Your task to perform on an android device: change keyboard looks Image 0: 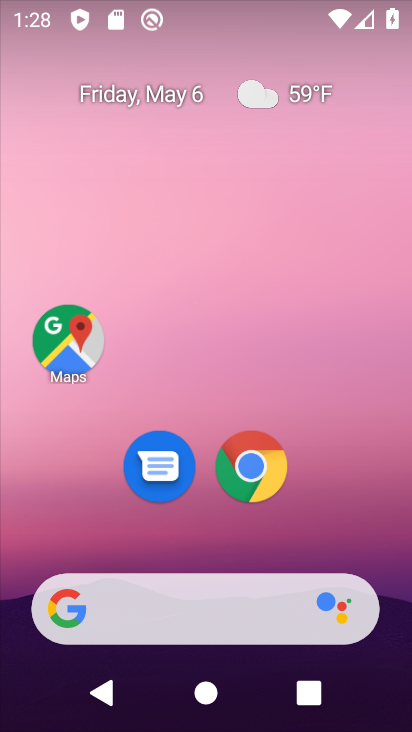
Step 0: drag from (193, 557) to (207, 85)
Your task to perform on an android device: change keyboard looks Image 1: 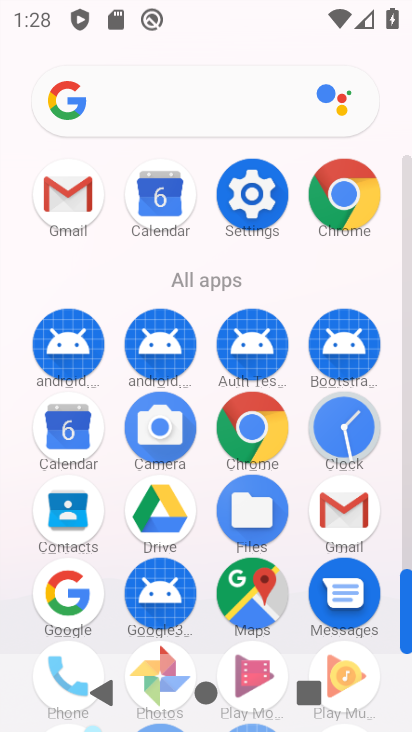
Step 1: click (340, 501)
Your task to perform on an android device: change keyboard looks Image 2: 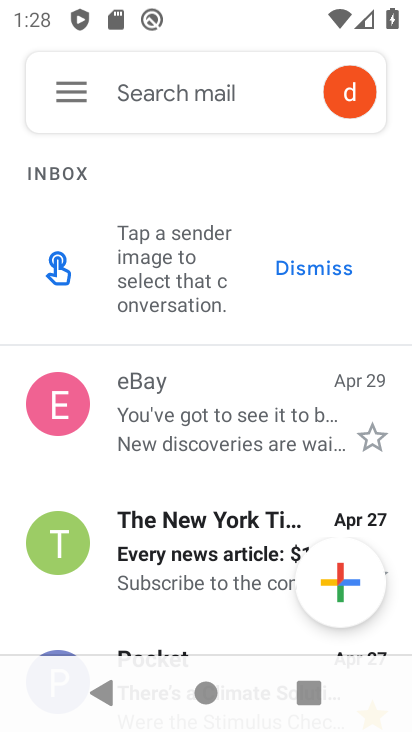
Step 2: press home button
Your task to perform on an android device: change keyboard looks Image 3: 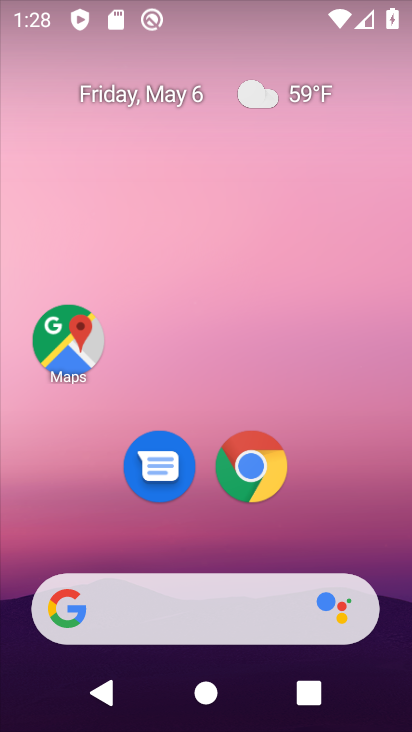
Step 3: drag from (206, 554) to (192, 59)
Your task to perform on an android device: change keyboard looks Image 4: 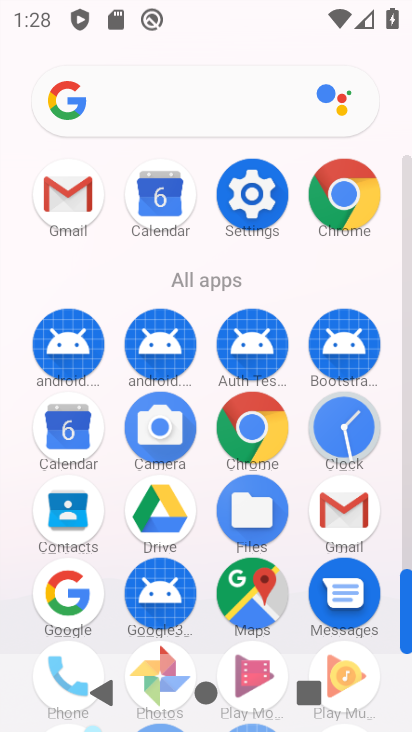
Step 4: click (248, 187)
Your task to perform on an android device: change keyboard looks Image 5: 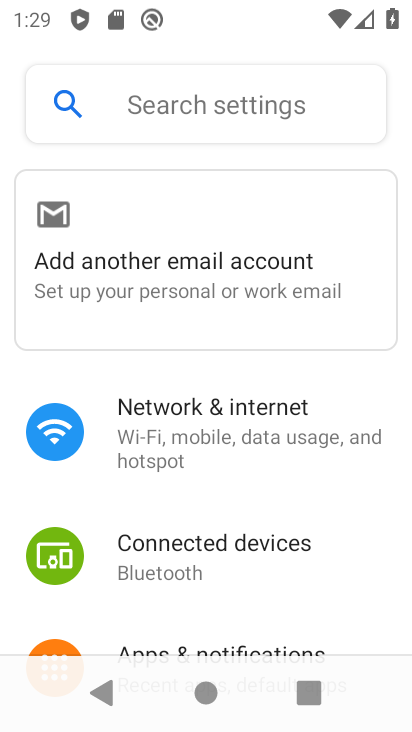
Step 5: drag from (212, 621) to (202, 147)
Your task to perform on an android device: change keyboard looks Image 6: 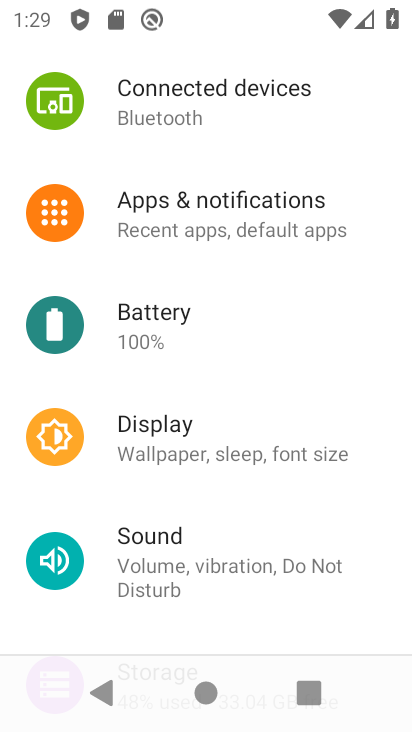
Step 6: drag from (185, 618) to (189, 74)
Your task to perform on an android device: change keyboard looks Image 7: 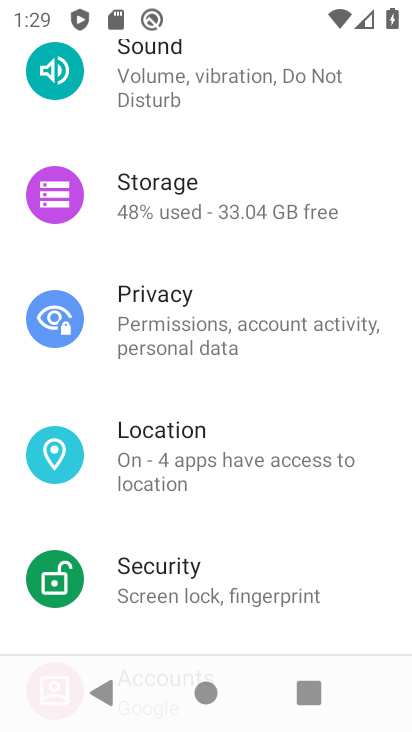
Step 7: drag from (224, 628) to (233, 30)
Your task to perform on an android device: change keyboard looks Image 8: 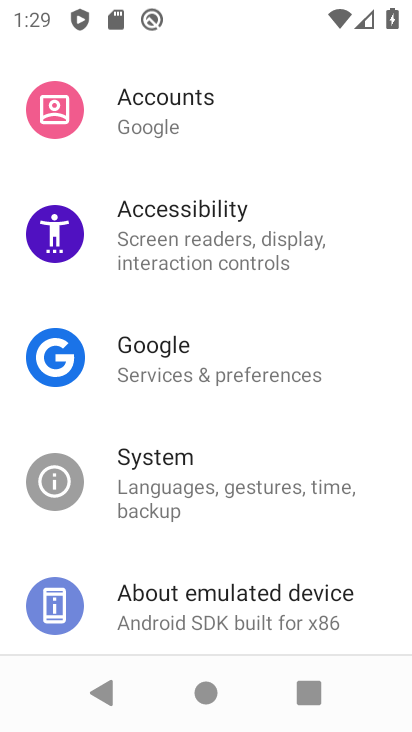
Step 8: click (192, 489)
Your task to perform on an android device: change keyboard looks Image 9: 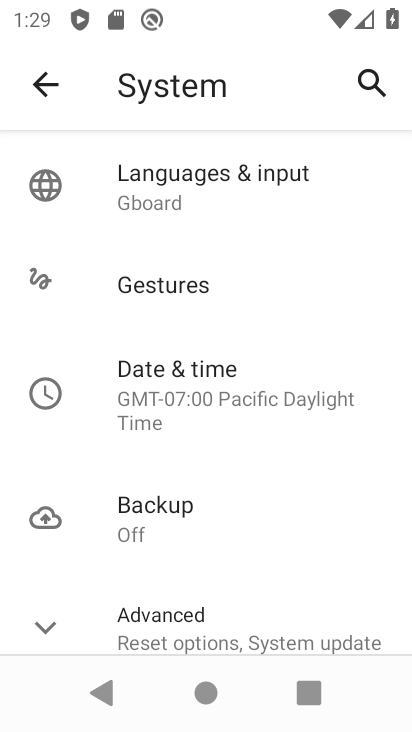
Step 9: click (210, 193)
Your task to perform on an android device: change keyboard looks Image 10: 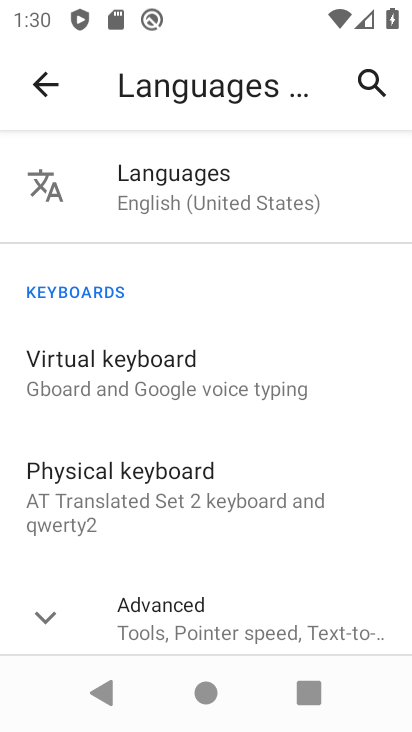
Step 10: click (168, 372)
Your task to perform on an android device: change keyboard looks Image 11: 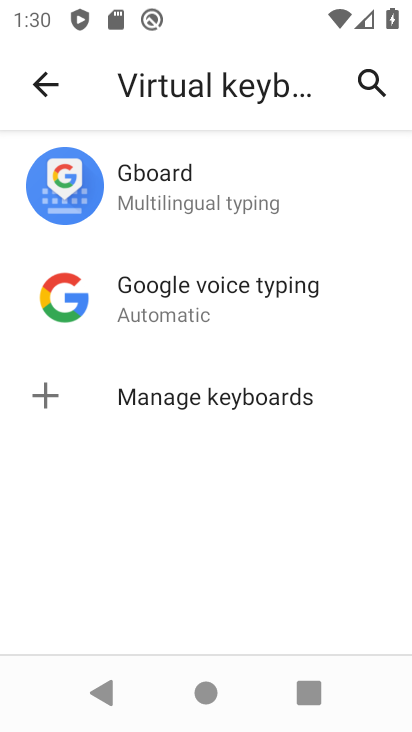
Step 11: click (166, 179)
Your task to perform on an android device: change keyboard looks Image 12: 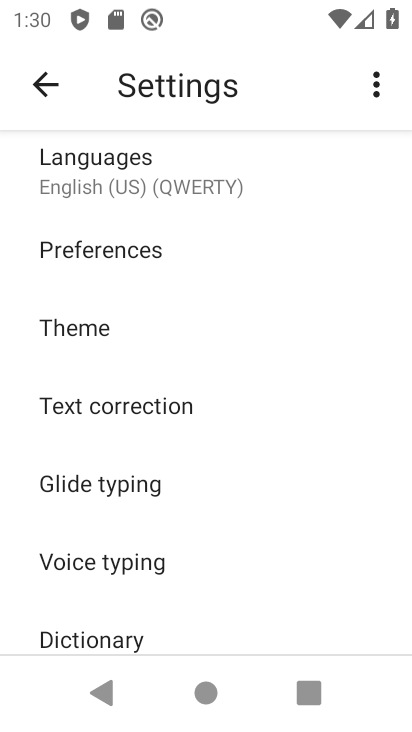
Step 12: click (118, 323)
Your task to perform on an android device: change keyboard looks Image 13: 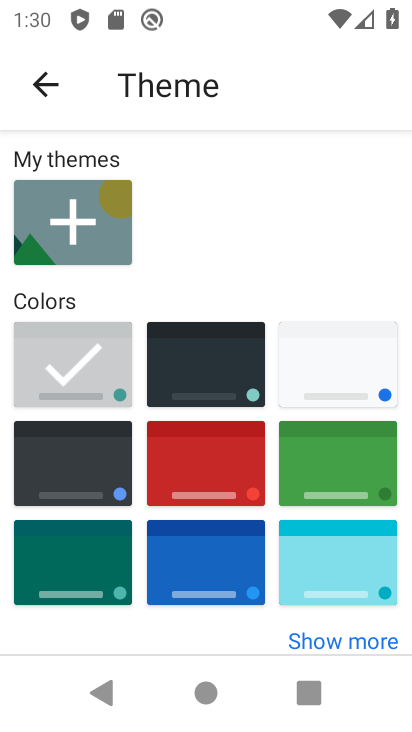
Step 13: click (203, 361)
Your task to perform on an android device: change keyboard looks Image 14: 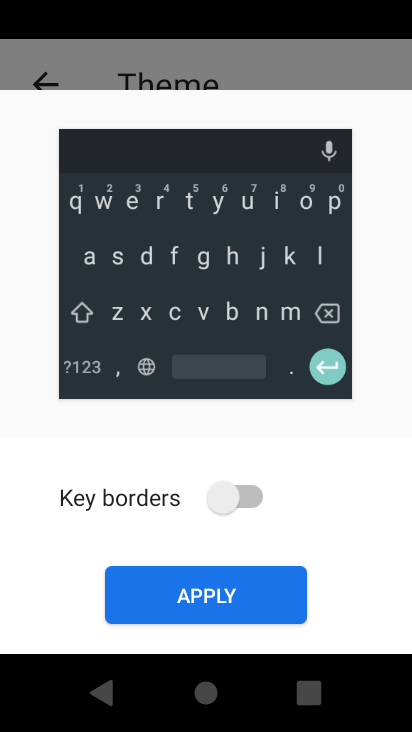
Step 14: click (213, 596)
Your task to perform on an android device: change keyboard looks Image 15: 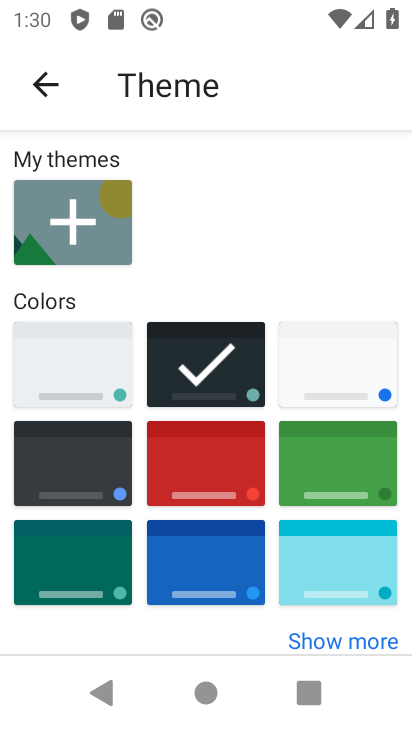
Step 15: task complete